Your task to perform on an android device: Look up the best rated drill on Lowes. Image 0: 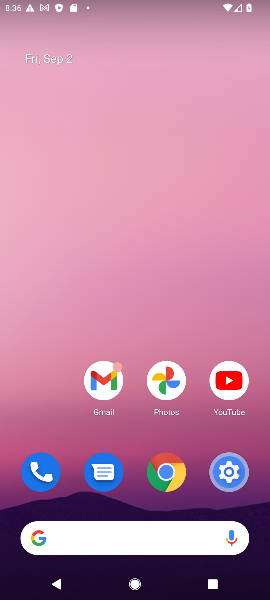
Step 0: drag from (120, 210) to (121, 179)
Your task to perform on an android device: Look up the best rated drill on Lowes. Image 1: 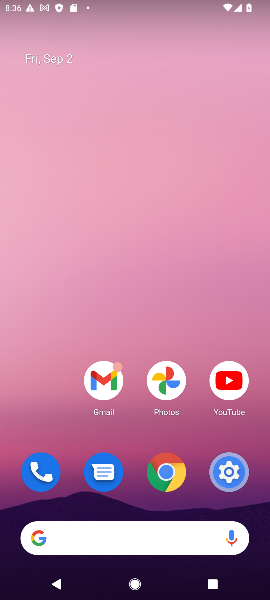
Step 1: drag from (133, 299) to (143, 169)
Your task to perform on an android device: Look up the best rated drill on Lowes. Image 2: 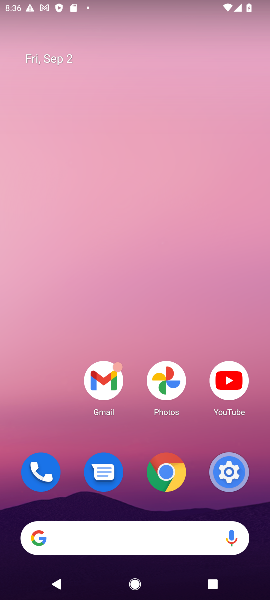
Step 2: drag from (136, 496) to (181, 191)
Your task to perform on an android device: Look up the best rated drill on Lowes. Image 3: 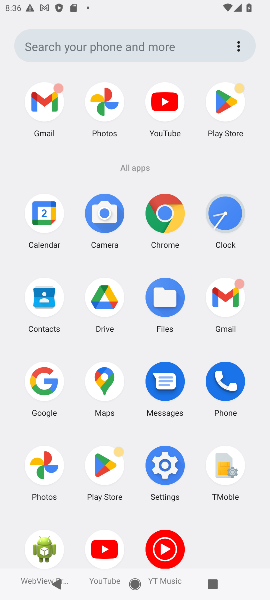
Step 3: click (46, 382)
Your task to perform on an android device: Look up the best rated drill on Lowes. Image 4: 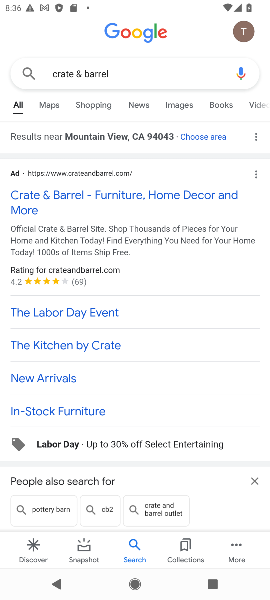
Step 4: click (147, 67)
Your task to perform on an android device: Look up the best rated drill on Lowes. Image 5: 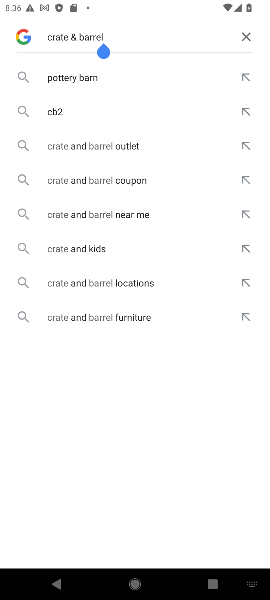
Step 5: click (249, 39)
Your task to perform on an android device: Look up the best rated drill on Lowes. Image 6: 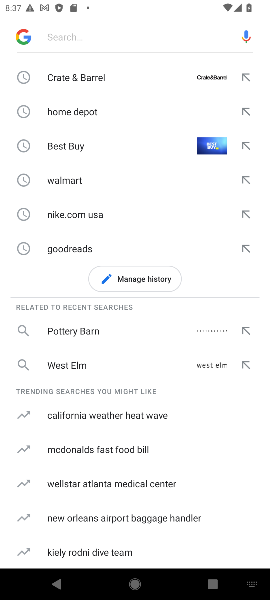
Step 6: type "Lowes"
Your task to perform on an android device: Look up the best rated drill on Lowes. Image 7: 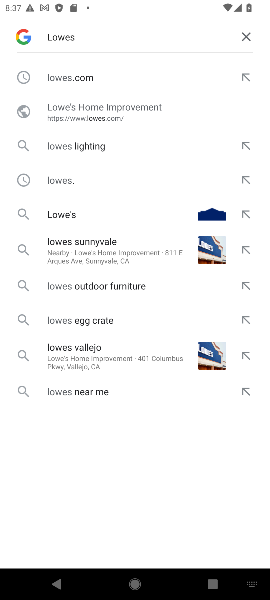
Step 7: click (79, 79)
Your task to perform on an android device: Look up the best rated drill on Lowes. Image 8: 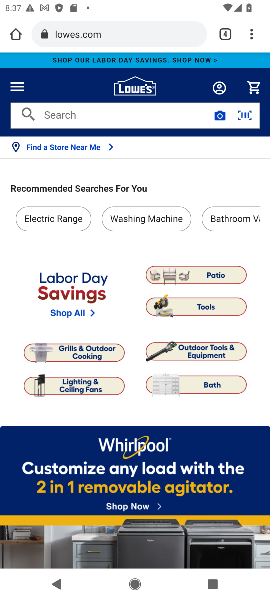
Step 8: click (88, 113)
Your task to perform on an android device: Look up the best rated drill on Lowes. Image 9: 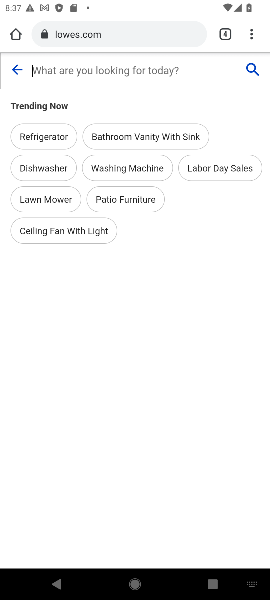
Step 9: type "best rated drill"
Your task to perform on an android device: Look up the best rated drill on Lowes. Image 10: 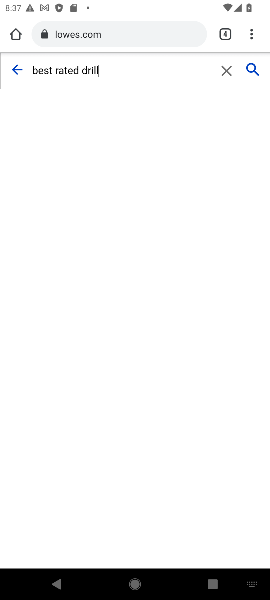
Step 10: click (258, 66)
Your task to perform on an android device: Look up the best rated drill on Lowes. Image 11: 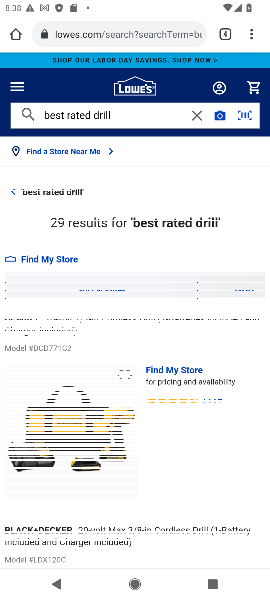
Step 11: click (115, 226)
Your task to perform on an android device: Look up the best rated drill on Lowes. Image 12: 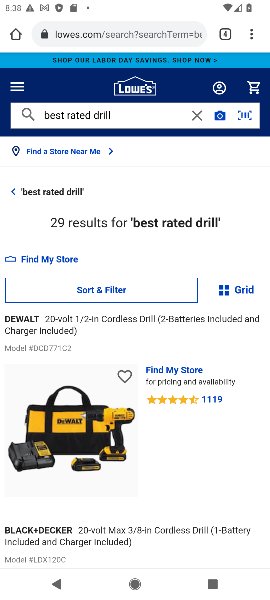
Step 12: click (180, 216)
Your task to perform on an android device: Look up the best rated drill on Lowes. Image 13: 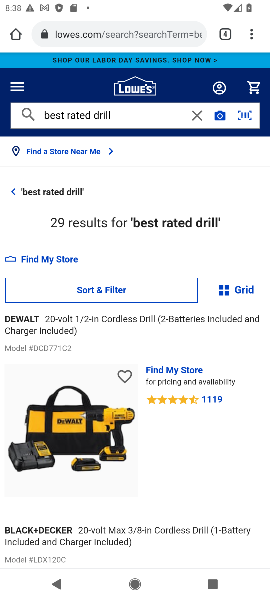
Step 13: task complete